Your task to perform on an android device: turn off notifications settings in the gmail app Image 0: 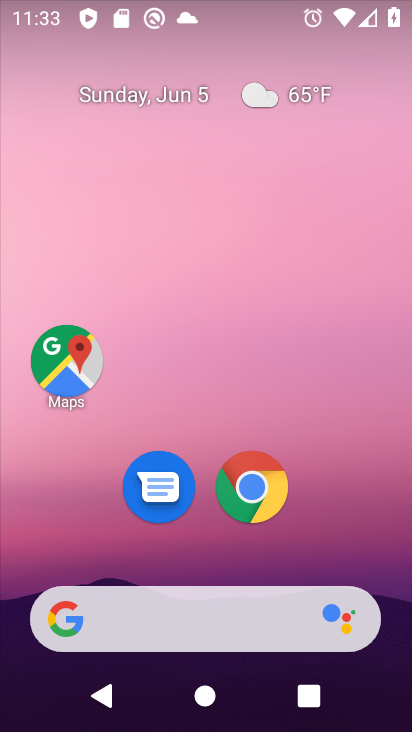
Step 0: drag from (340, 537) to (278, 60)
Your task to perform on an android device: turn off notifications settings in the gmail app Image 1: 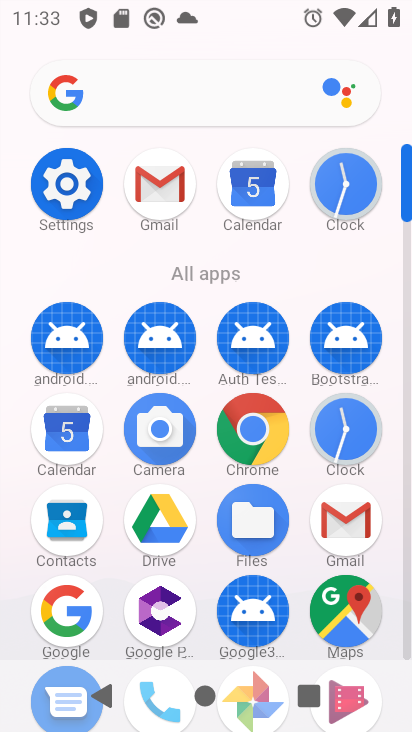
Step 1: click (160, 179)
Your task to perform on an android device: turn off notifications settings in the gmail app Image 2: 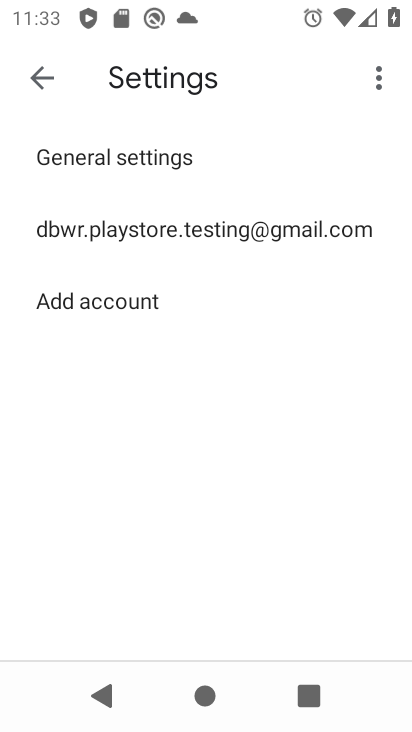
Step 2: click (71, 226)
Your task to perform on an android device: turn off notifications settings in the gmail app Image 3: 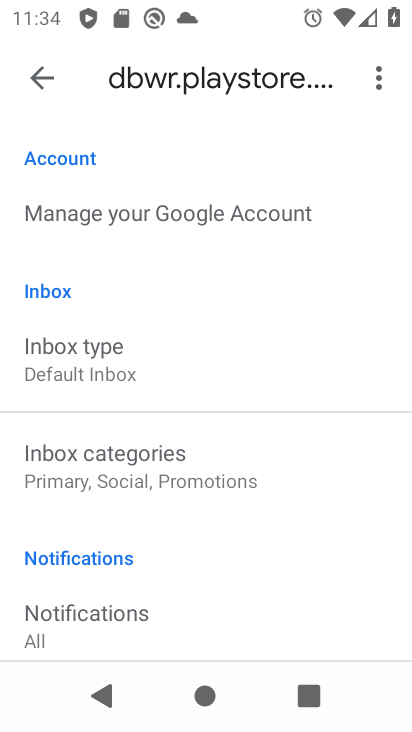
Step 3: drag from (168, 509) to (263, 366)
Your task to perform on an android device: turn off notifications settings in the gmail app Image 4: 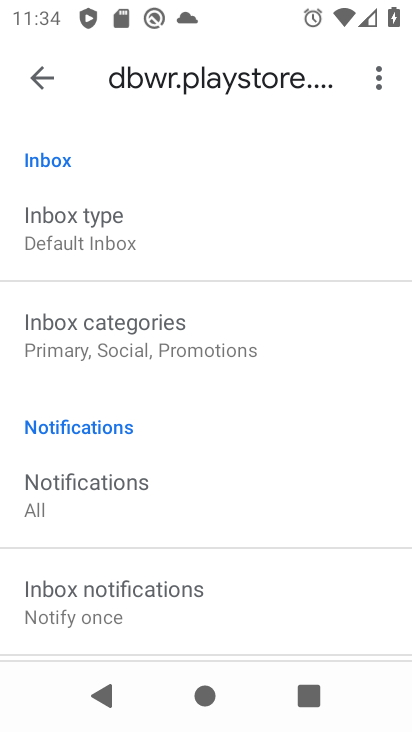
Step 4: drag from (195, 491) to (287, 340)
Your task to perform on an android device: turn off notifications settings in the gmail app Image 5: 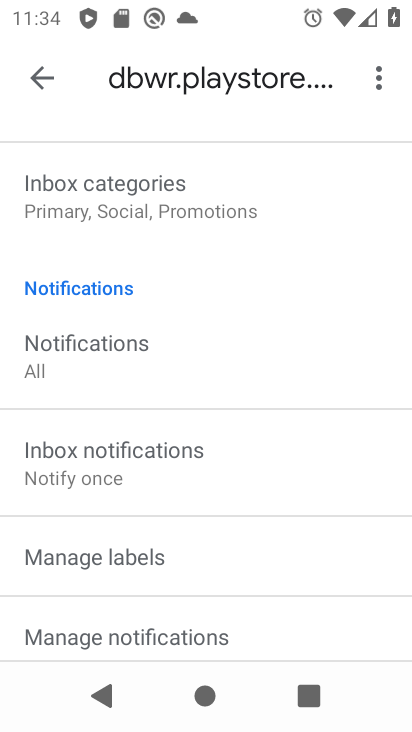
Step 5: drag from (193, 573) to (287, 441)
Your task to perform on an android device: turn off notifications settings in the gmail app Image 6: 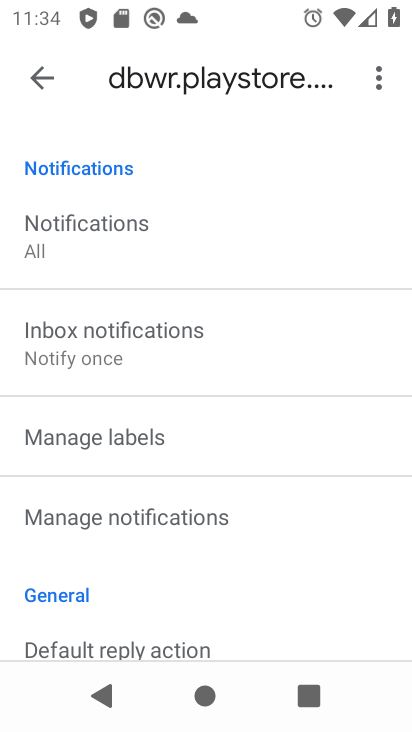
Step 6: click (188, 516)
Your task to perform on an android device: turn off notifications settings in the gmail app Image 7: 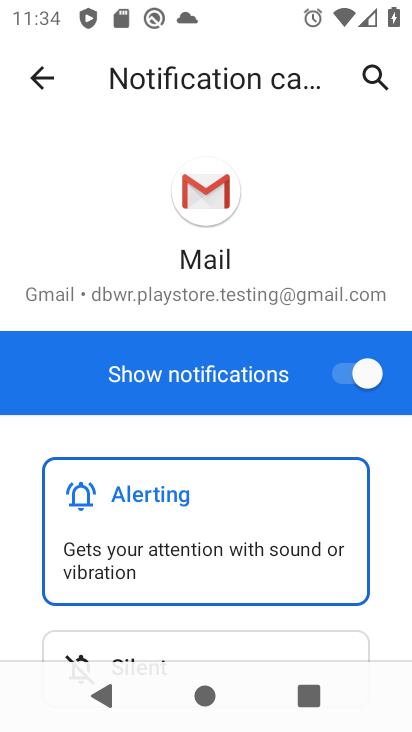
Step 7: click (340, 375)
Your task to perform on an android device: turn off notifications settings in the gmail app Image 8: 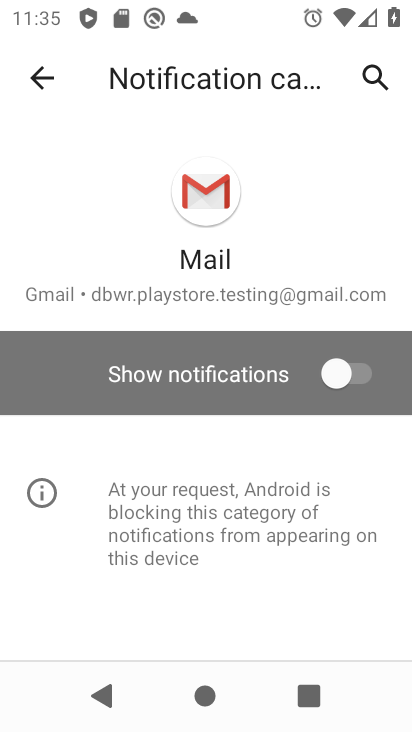
Step 8: task complete